Your task to perform on an android device: Open the calendar and show me this week's events Image 0: 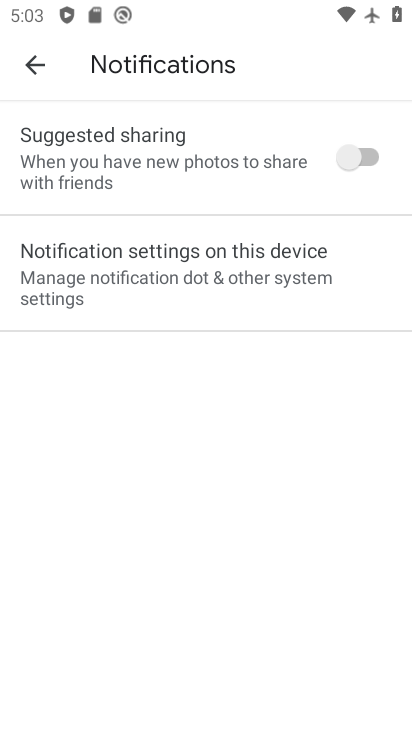
Step 0: press home button
Your task to perform on an android device: Open the calendar and show me this week's events Image 1: 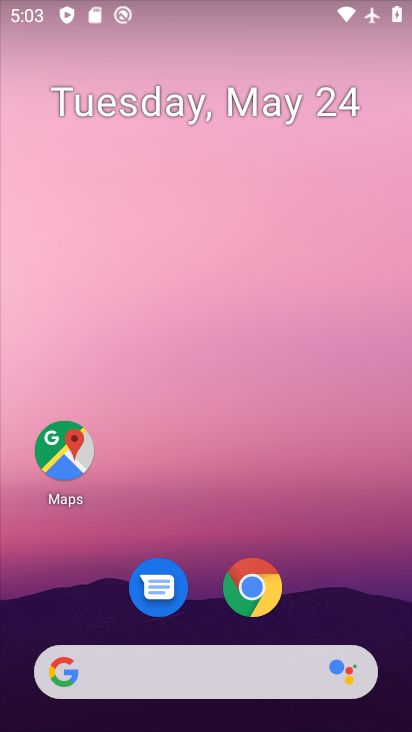
Step 1: drag from (324, 595) to (233, 49)
Your task to perform on an android device: Open the calendar and show me this week's events Image 2: 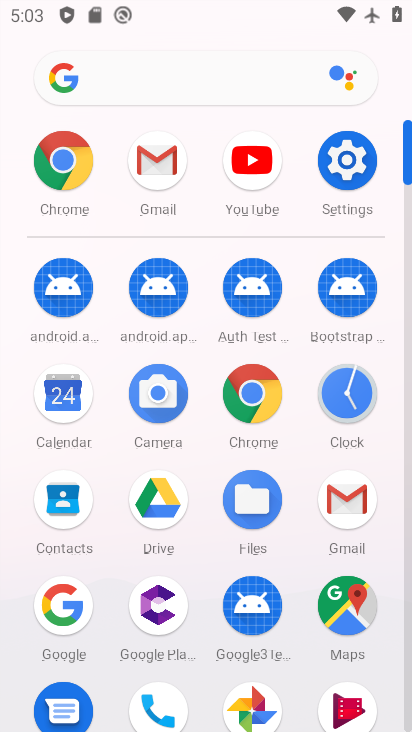
Step 2: click (67, 391)
Your task to perform on an android device: Open the calendar and show me this week's events Image 3: 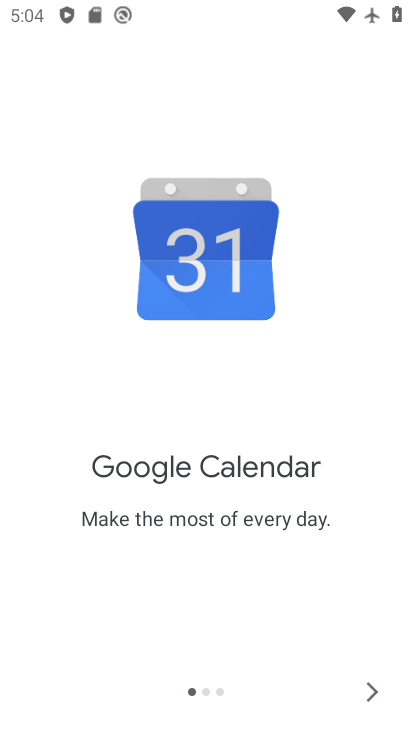
Step 3: click (373, 699)
Your task to perform on an android device: Open the calendar and show me this week's events Image 4: 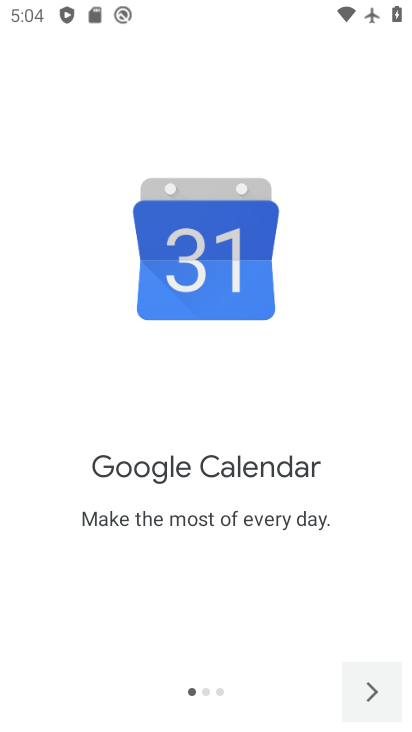
Step 4: click (374, 698)
Your task to perform on an android device: Open the calendar and show me this week's events Image 5: 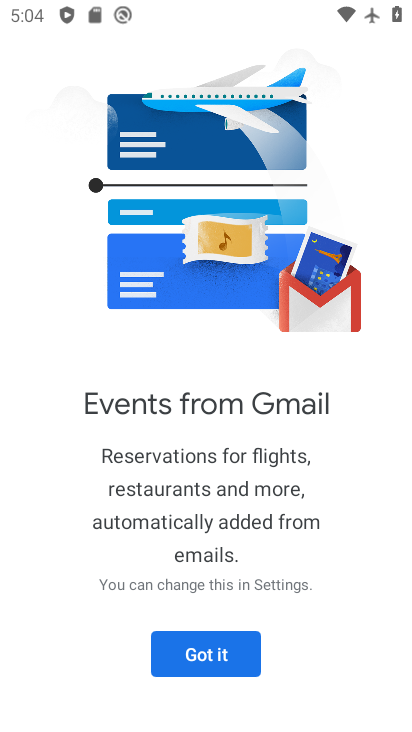
Step 5: click (211, 660)
Your task to perform on an android device: Open the calendar and show me this week's events Image 6: 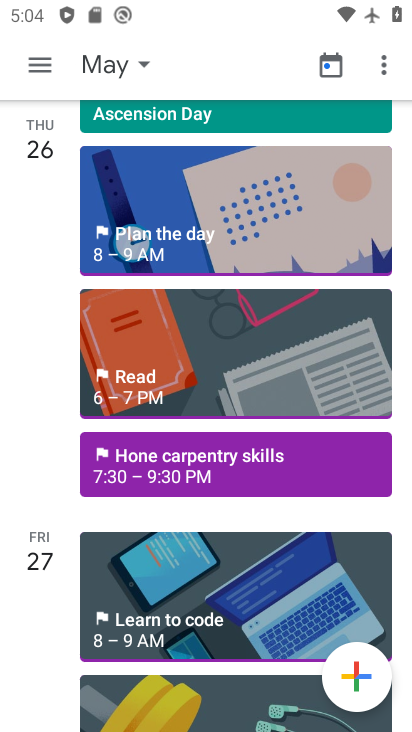
Step 6: click (40, 63)
Your task to perform on an android device: Open the calendar and show me this week's events Image 7: 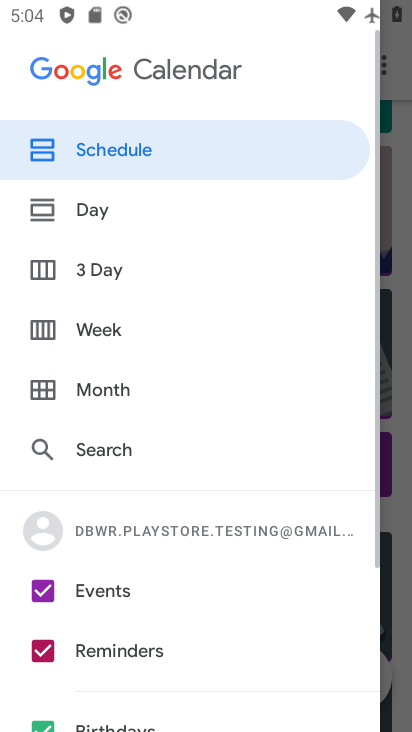
Step 7: click (104, 320)
Your task to perform on an android device: Open the calendar and show me this week's events Image 8: 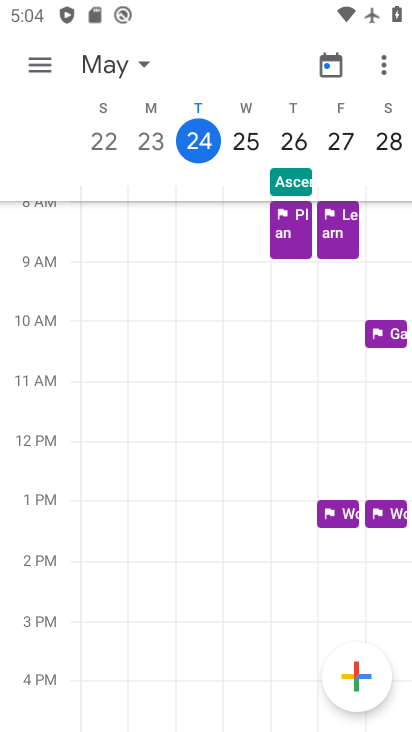
Step 8: task complete